Your task to perform on an android device: Open Maps and search for coffee Image 0: 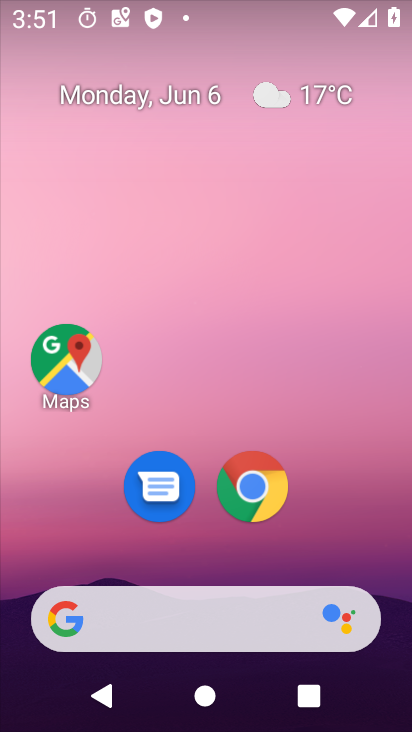
Step 0: click (61, 365)
Your task to perform on an android device: Open Maps and search for coffee Image 1: 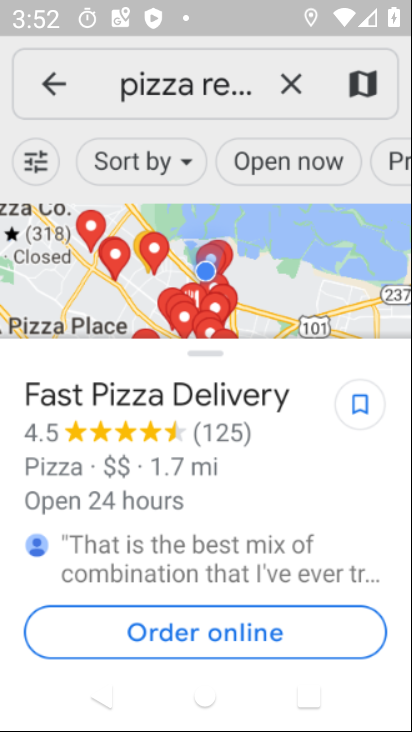
Step 1: click (189, 95)
Your task to perform on an android device: Open Maps and search for coffee Image 2: 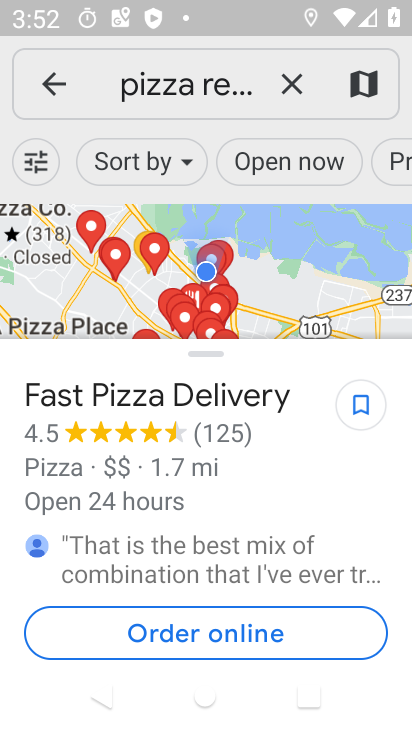
Step 2: click (261, 86)
Your task to perform on an android device: Open Maps and search for coffee Image 3: 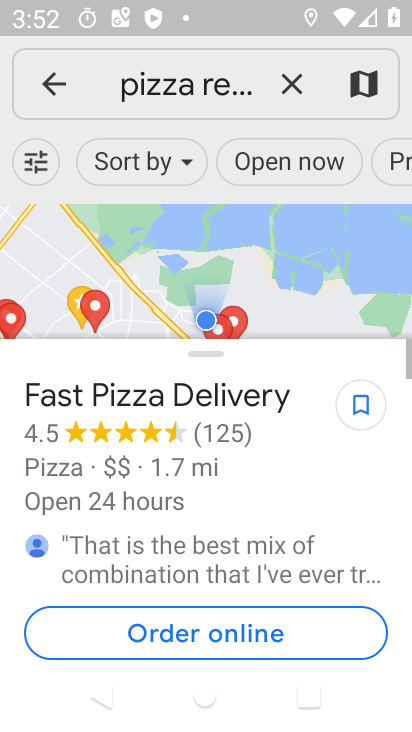
Step 3: click (292, 77)
Your task to perform on an android device: Open Maps and search for coffee Image 4: 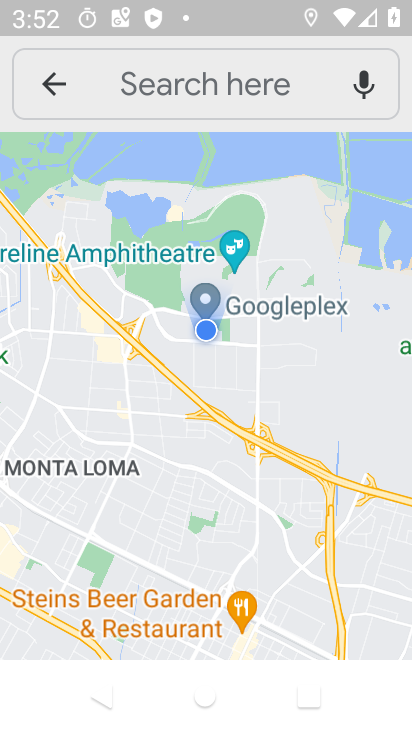
Step 4: click (252, 84)
Your task to perform on an android device: Open Maps and search for coffee Image 5: 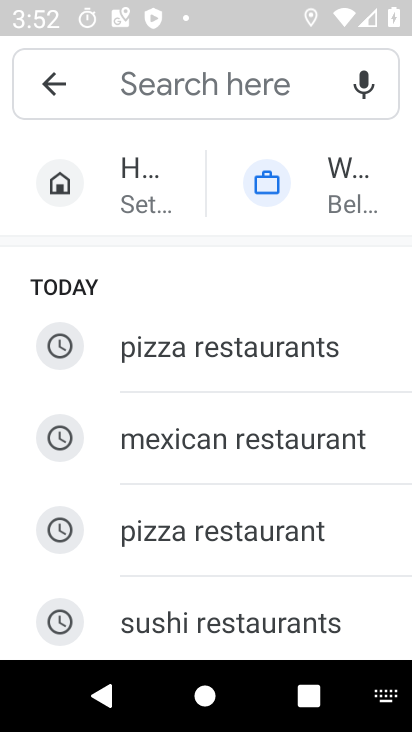
Step 5: type "coffee"
Your task to perform on an android device: Open Maps and search for coffee Image 6: 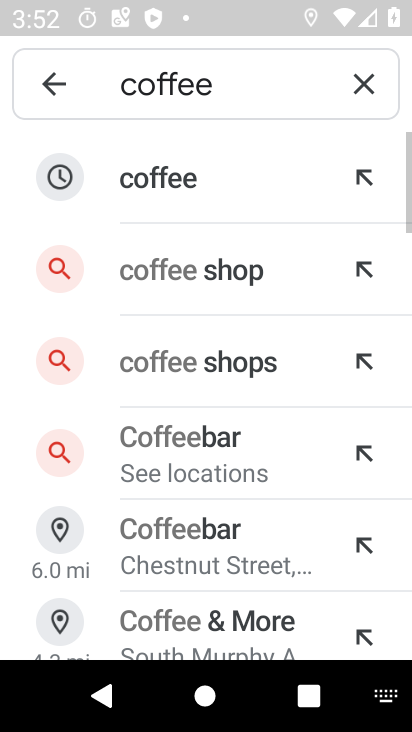
Step 6: click (166, 180)
Your task to perform on an android device: Open Maps and search for coffee Image 7: 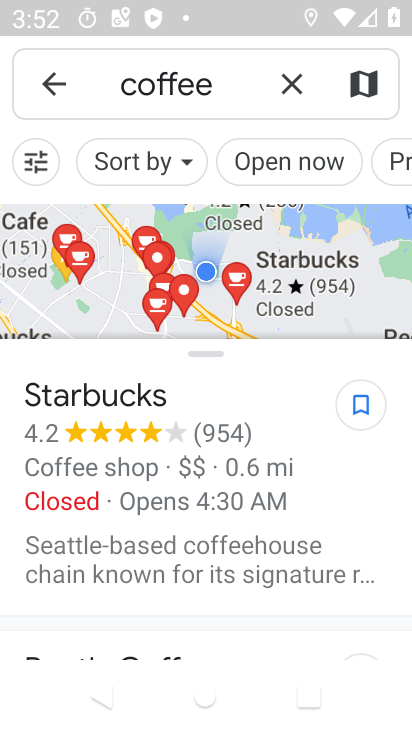
Step 7: task complete